Your task to perform on an android device: open the mobile data screen to see how much data has been used Image 0: 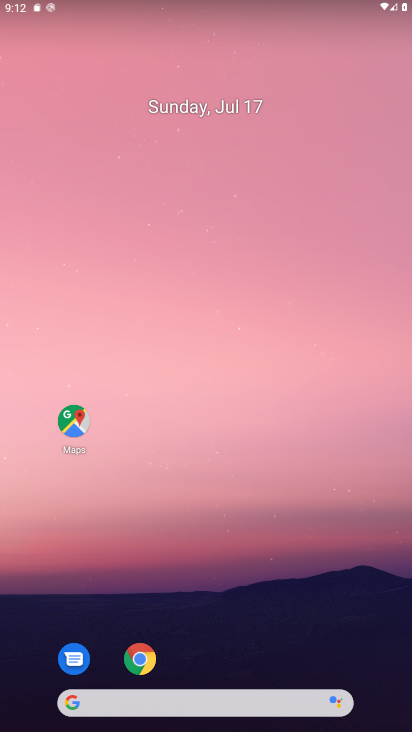
Step 0: drag from (200, 695) to (206, 221)
Your task to perform on an android device: open the mobile data screen to see how much data has been used Image 1: 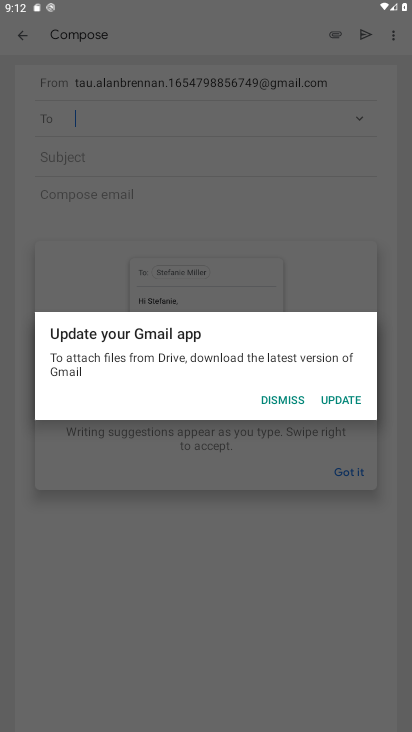
Step 1: click (363, 118)
Your task to perform on an android device: open the mobile data screen to see how much data has been used Image 2: 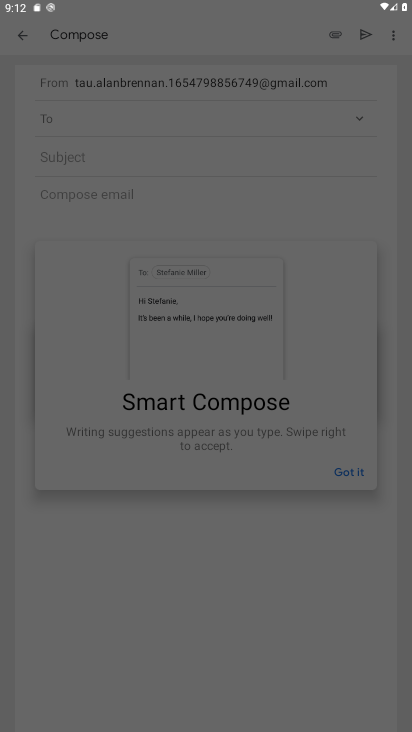
Step 2: press home button
Your task to perform on an android device: open the mobile data screen to see how much data has been used Image 3: 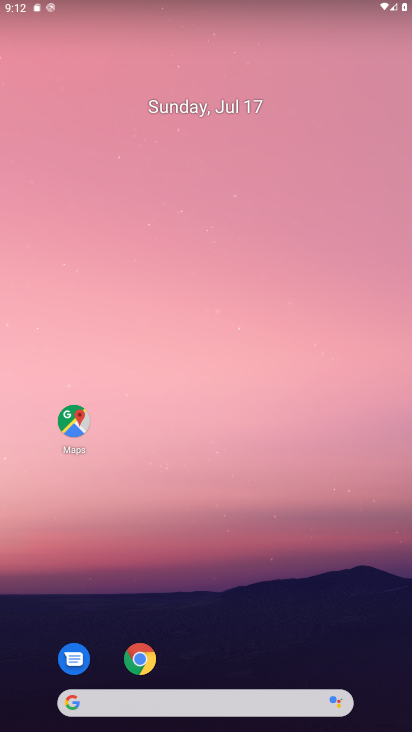
Step 3: drag from (205, 698) to (274, 64)
Your task to perform on an android device: open the mobile data screen to see how much data has been used Image 4: 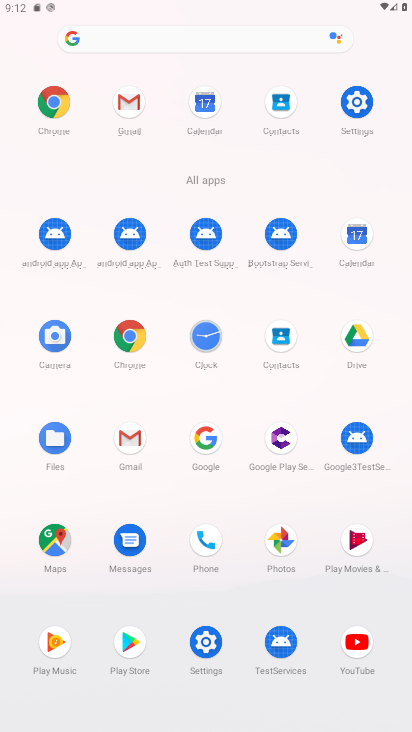
Step 4: click (348, 99)
Your task to perform on an android device: open the mobile data screen to see how much data has been used Image 5: 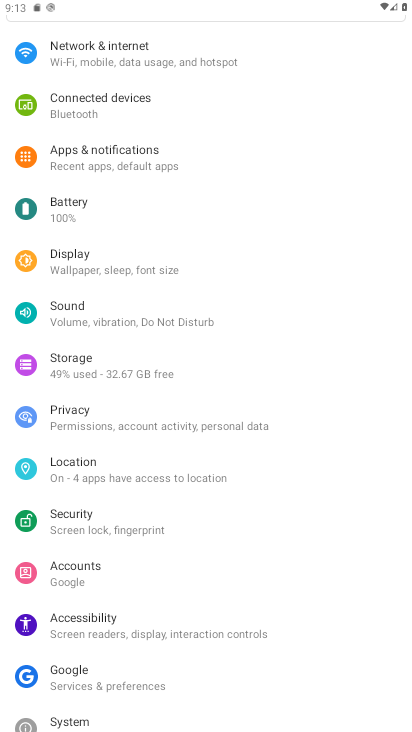
Step 5: click (113, 61)
Your task to perform on an android device: open the mobile data screen to see how much data has been used Image 6: 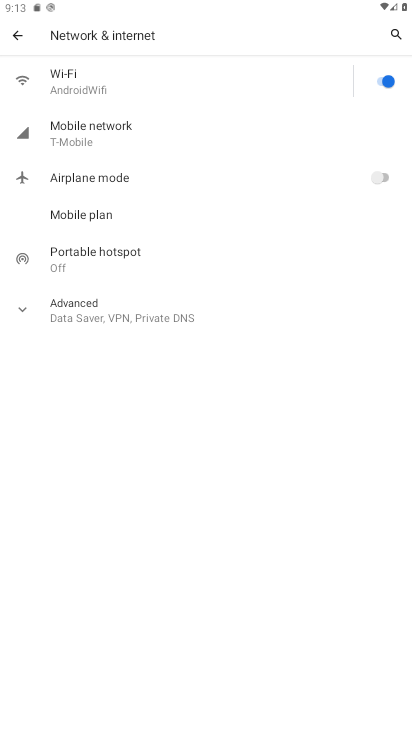
Step 6: click (126, 139)
Your task to perform on an android device: open the mobile data screen to see how much data has been used Image 7: 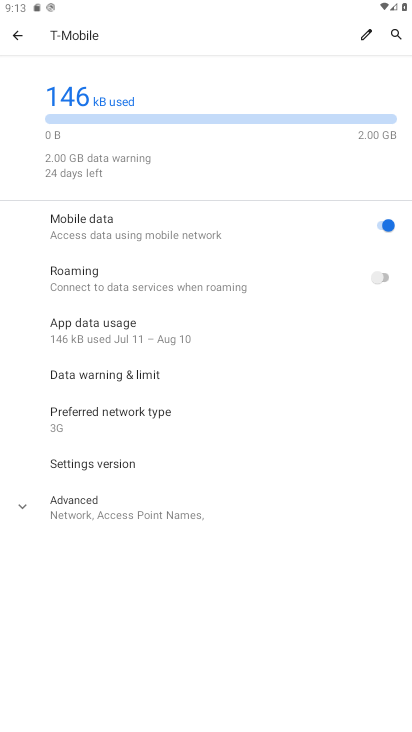
Step 7: task complete